Your task to perform on an android device: turn on airplane mode Image 0: 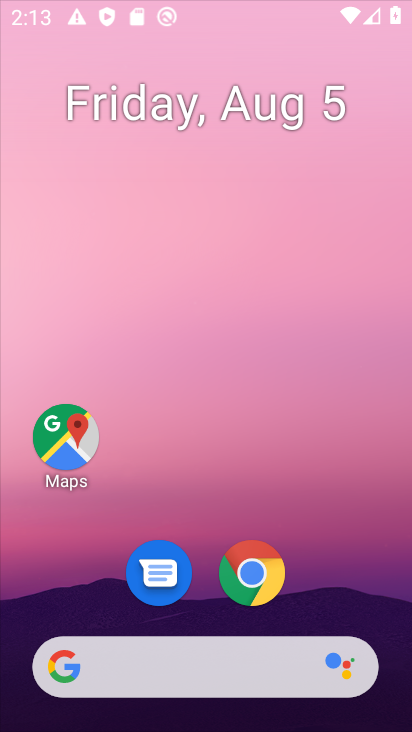
Step 0: click (287, 99)
Your task to perform on an android device: turn on airplane mode Image 1: 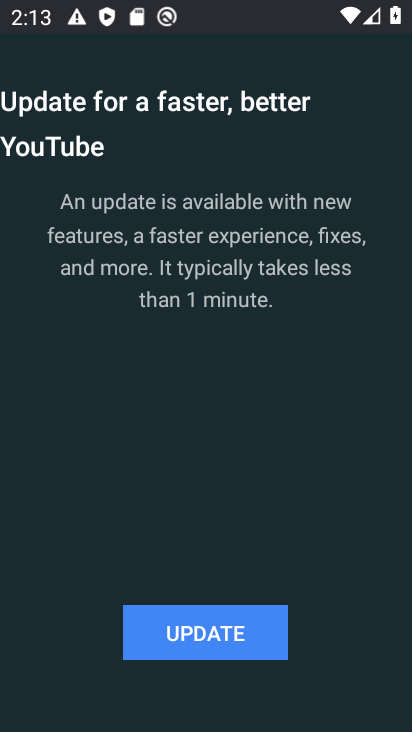
Step 1: press back button
Your task to perform on an android device: turn on airplane mode Image 2: 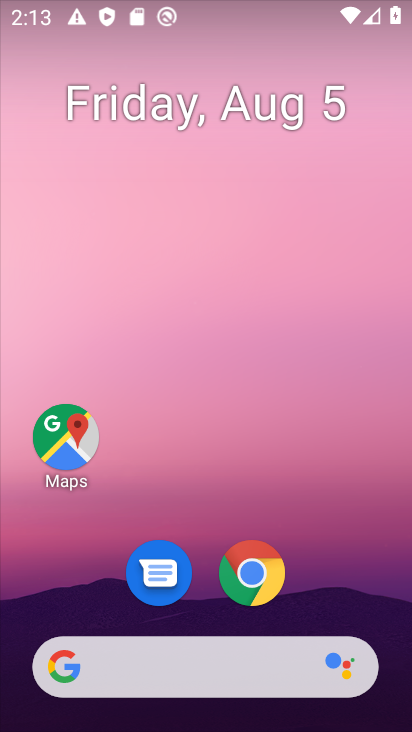
Step 2: drag from (367, 617) to (260, 133)
Your task to perform on an android device: turn on airplane mode Image 3: 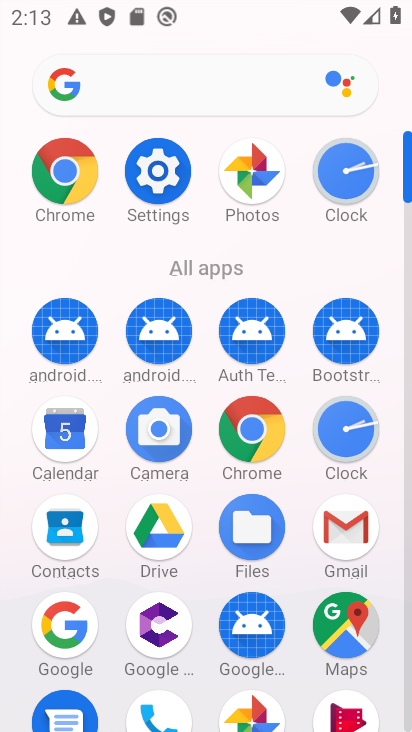
Step 3: click (157, 171)
Your task to perform on an android device: turn on airplane mode Image 4: 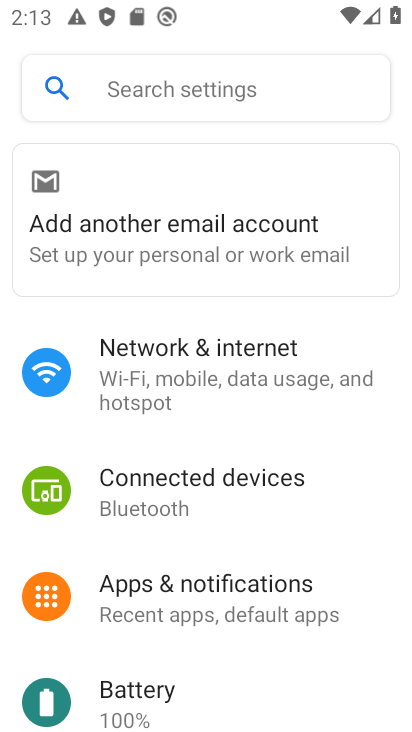
Step 4: click (239, 383)
Your task to perform on an android device: turn on airplane mode Image 5: 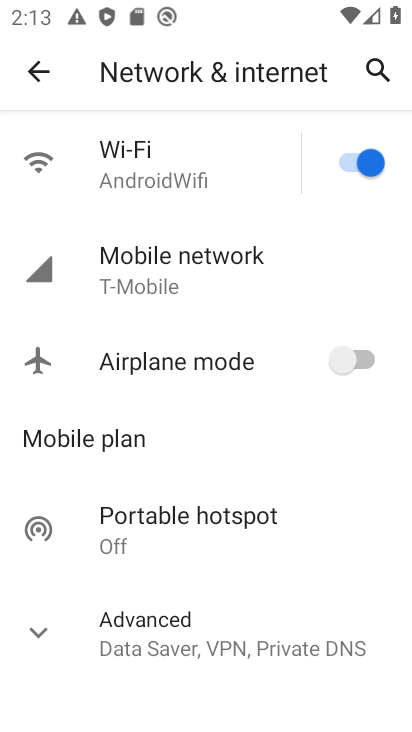
Step 5: click (366, 363)
Your task to perform on an android device: turn on airplane mode Image 6: 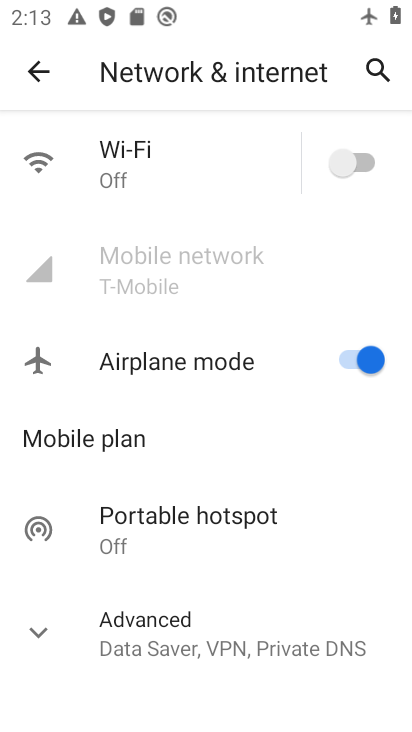
Step 6: task complete